Your task to perform on an android device: Open calendar and show me the fourth week of next month Image 0: 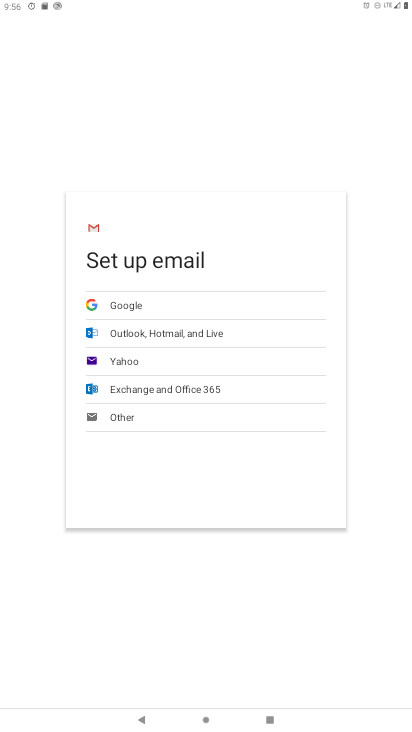
Step 0: press home button
Your task to perform on an android device: Open calendar and show me the fourth week of next month Image 1: 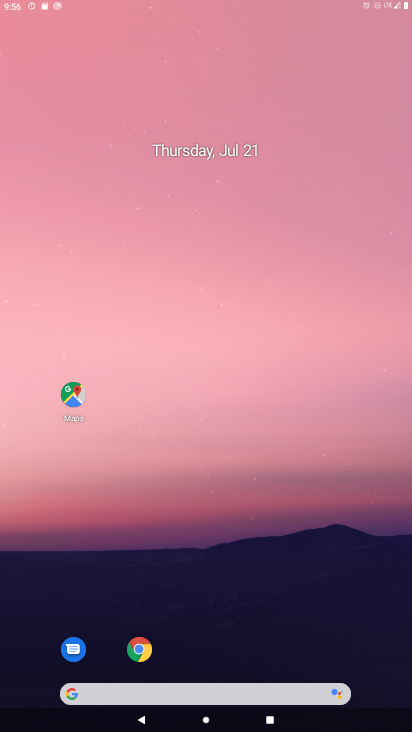
Step 1: drag from (374, 688) to (202, 34)
Your task to perform on an android device: Open calendar and show me the fourth week of next month Image 2: 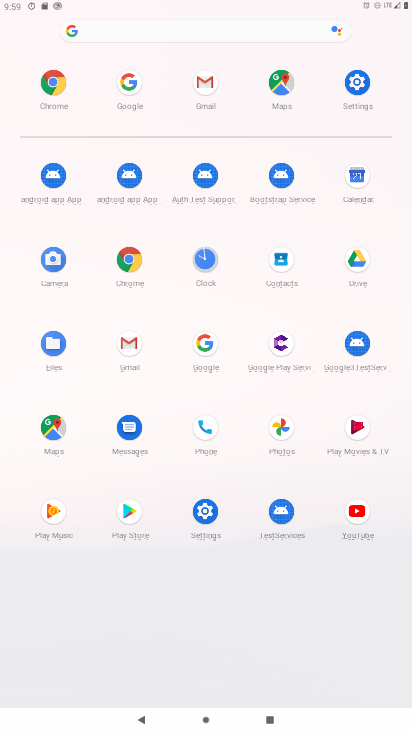
Step 2: click (352, 182)
Your task to perform on an android device: Open calendar and show me the fourth week of next month Image 3: 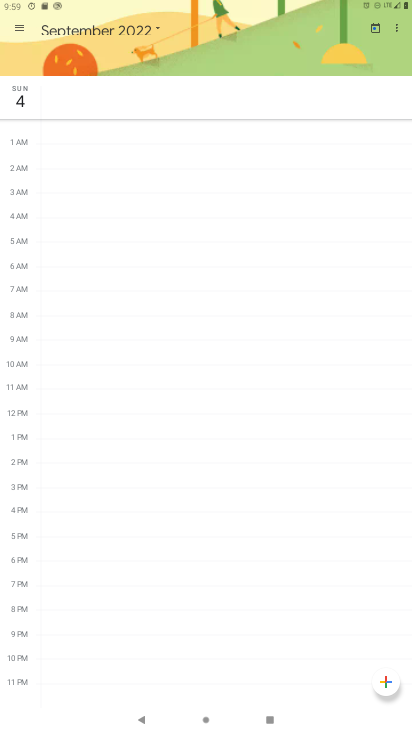
Step 3: click (88, 34)
Your task to perform on an android device: Open calendar and show me the fourth week of next month Image 4: 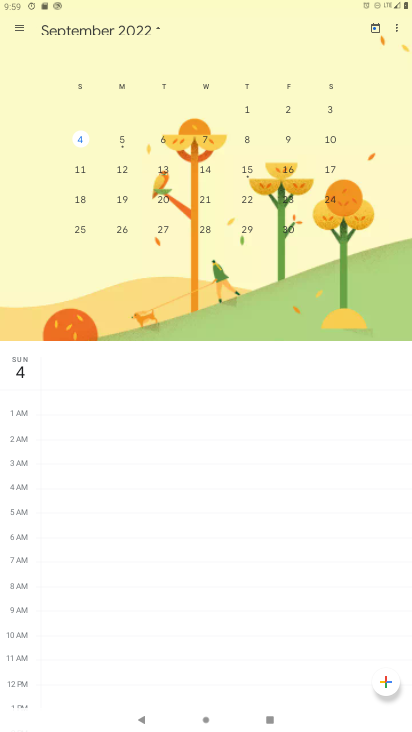
Step 4: drag from (293, 173) to (45, 149)
Your task to perform on an android device: Open calendar and show me the fourth week of next month Image 5: 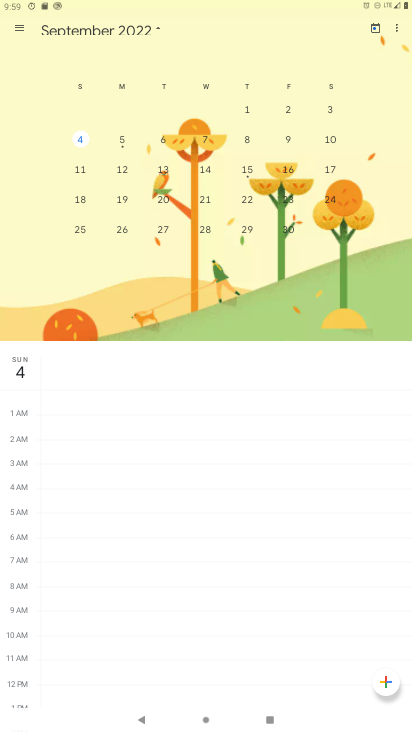
Step 5: drag from (261, 171) to (25, 200)
Your task to perform on an android device: Open calendar and show me the fourth week of next month Image 6: 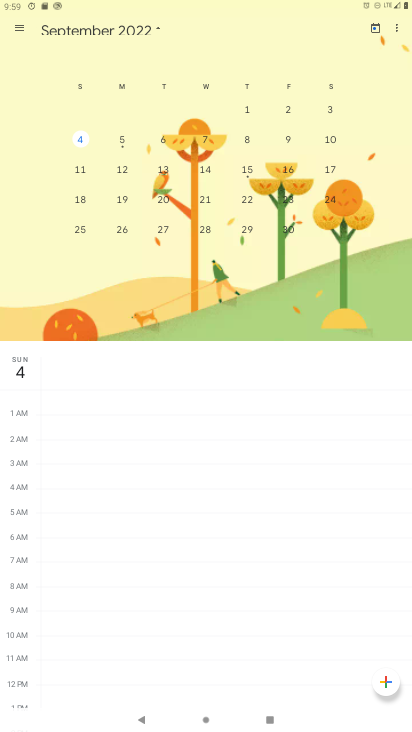
Step 6: drag from (330, 146) to (11, 91)
Your task to perform on an android device: Open calendar and show me the fourth week of next month Image 7: 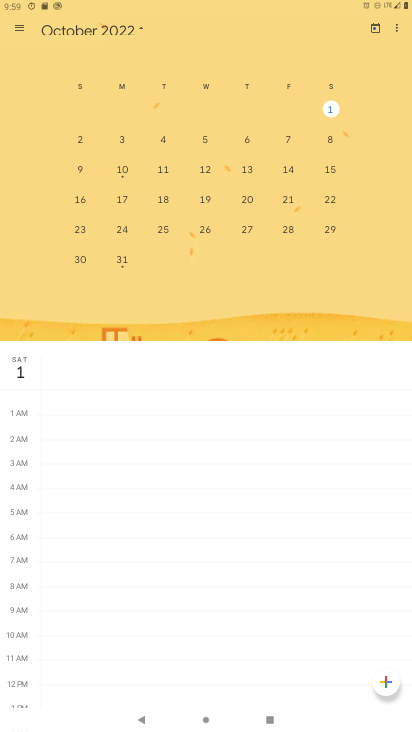
Step 7: click (76, 230)
Your task to perform on an android device: Open calendar and show me the fourth week of next month Image 8: 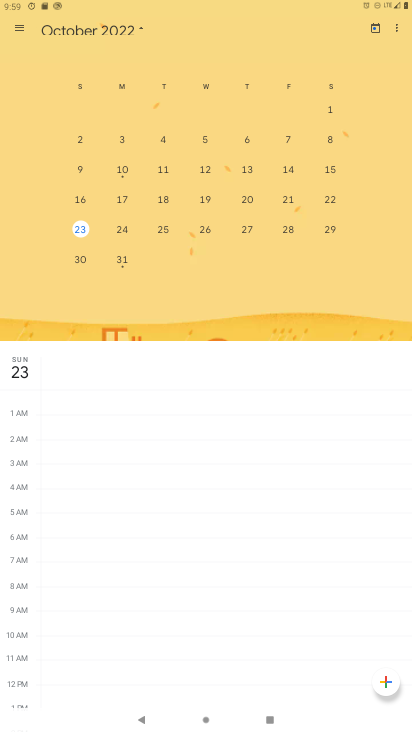
Step 8: task complete